Your task to perform on an android device: What's on my calendar tomorrow? Image 0: 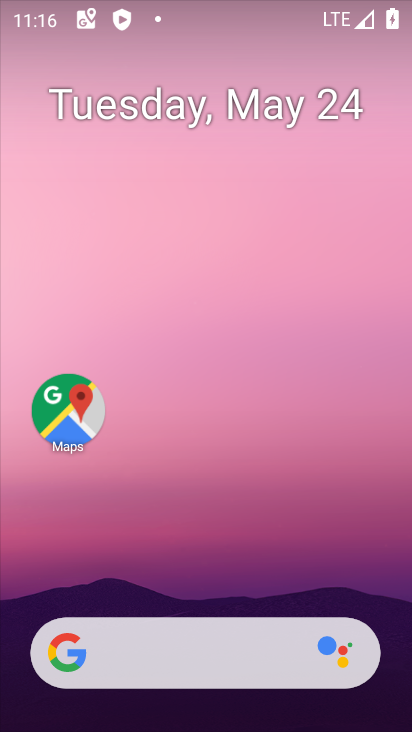
Step 0: drag from (239, 629) to (180, 63)
Your task to perform on an android device: What's on my calendar tomorrow? Image 1: 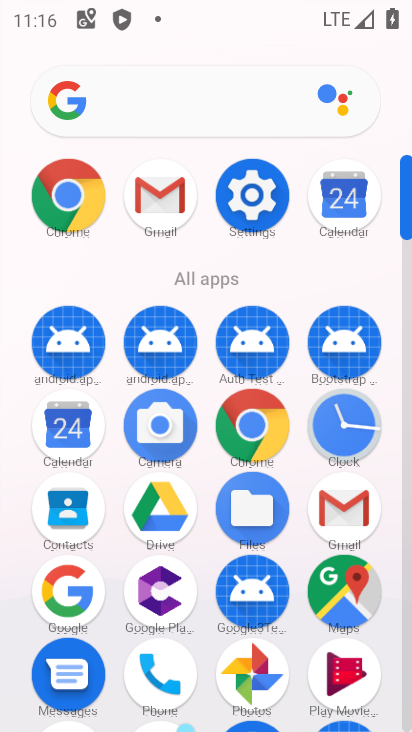
Step 1: click (70, 431)
Your task to perform on an android device: What's on my calendar tomorrow? Image 2: 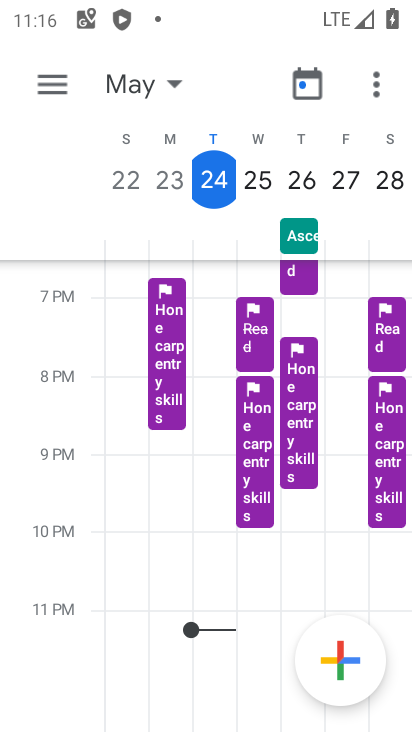
Step 2: click (45, 82)
Your task to perform on an android device: What's on my calendar tomorrow? Image 3: 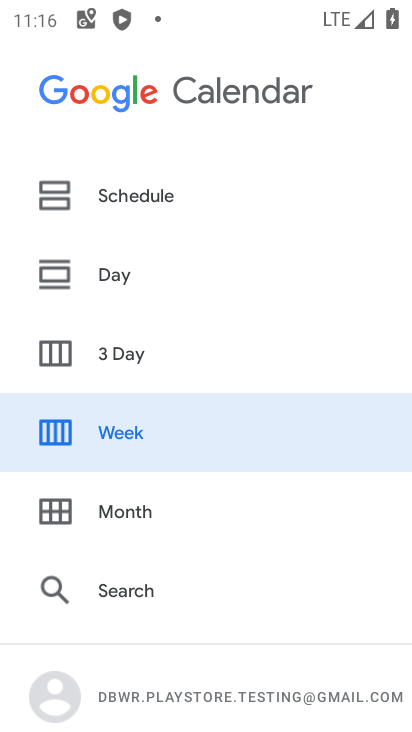
Step 3: click (166, 193)
Your task to perform on an android device: What's on my calendar tomorrow? Image 4: 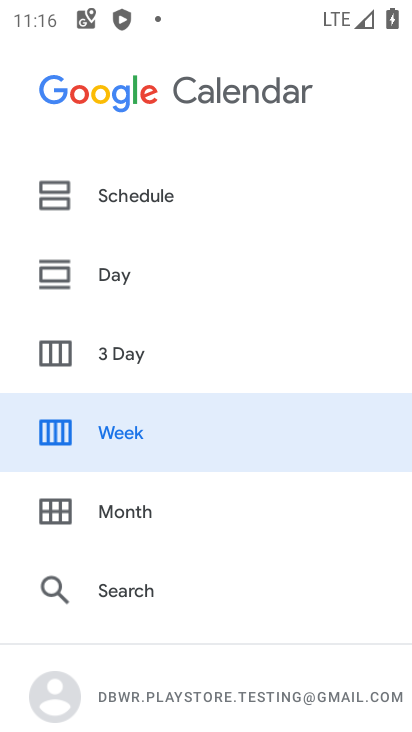
Step 4: click (131, 206)
Your task to perform on an android device: What's on my calendar tomorrow? Image 5: 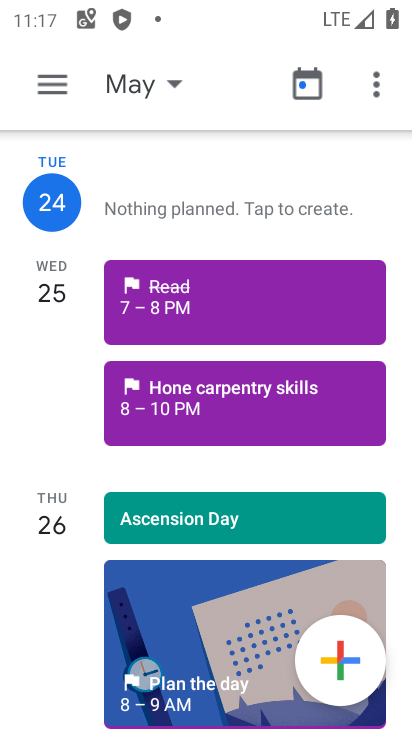
Step 5: task complete